Your task to perform on an android device: turn off translation in the chrome app Image 0: 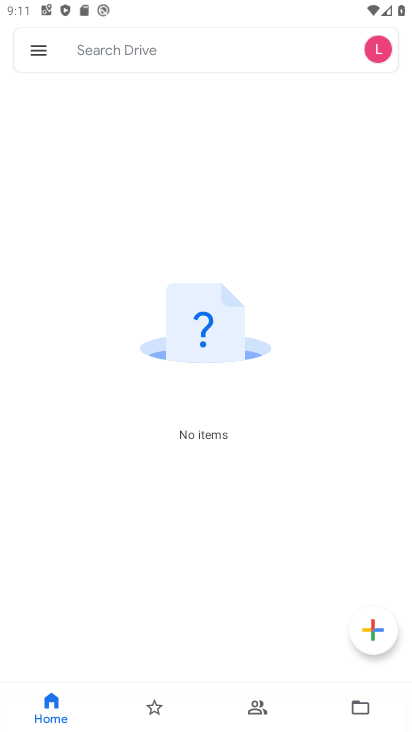
Step 0: press home button
Your task to perform on an android device: turn off translation in the chrome app Image 1: 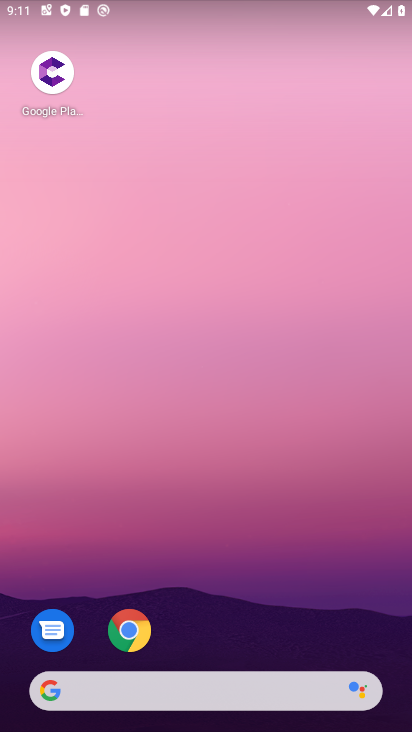
Step 1: drag from (230, 487) to (151, 1)
Your task to perform on an android device: turn off translation in the chrome app Image 2: 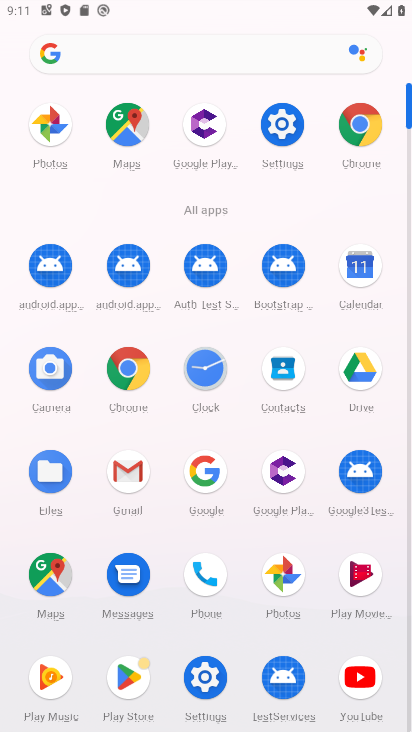
Step 2: click (123, 347)
Your task to perform on an android device: turn off translation in the chrome app Image 3: 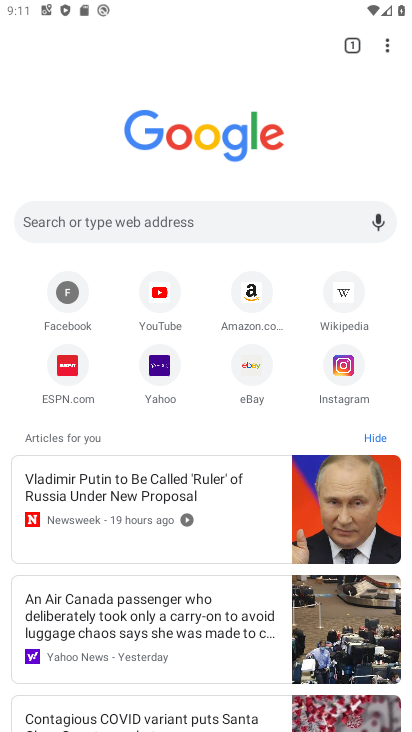
Step 3: drag from (384, 41) to (233, 395)
Your task to perform on an android device: turn off translation in the chrome app Image 4: 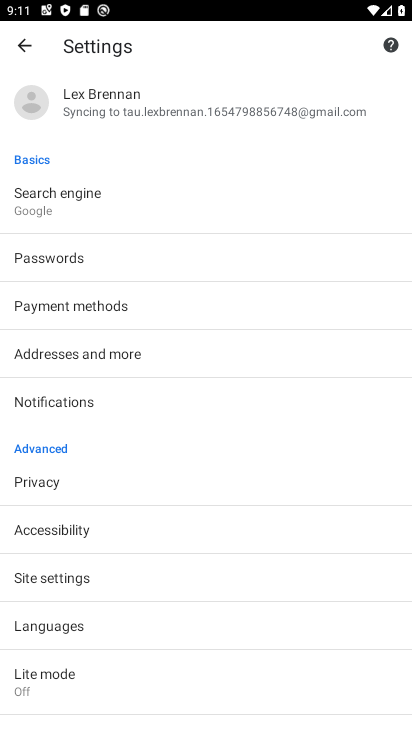
Step 4: click (22, 620)
Your task to perform on an android device: turn off translation in the chrome app Image 5: 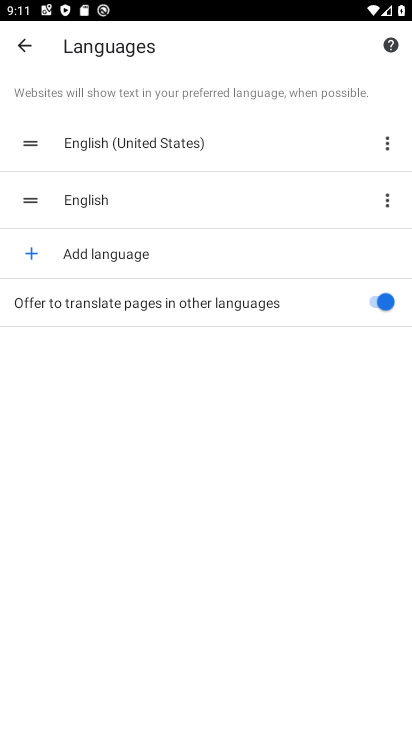
Step 5: click (394, 301)
Your task to perform on an android device: turn off translation in the chrome app Image 6: 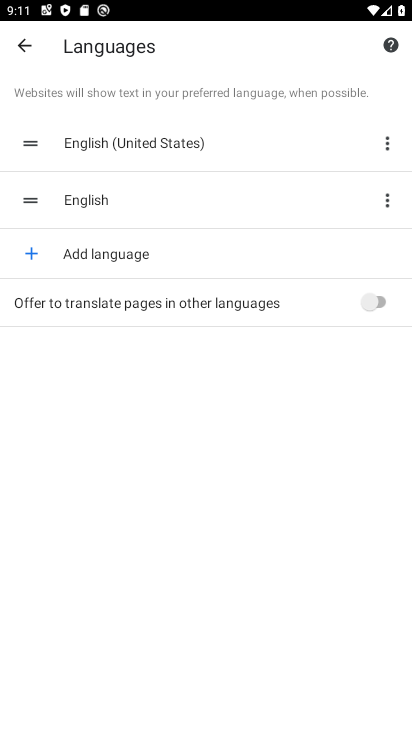
Step 6: task complete